Your task to perform on an android device: When is my next appointment? Image 0: 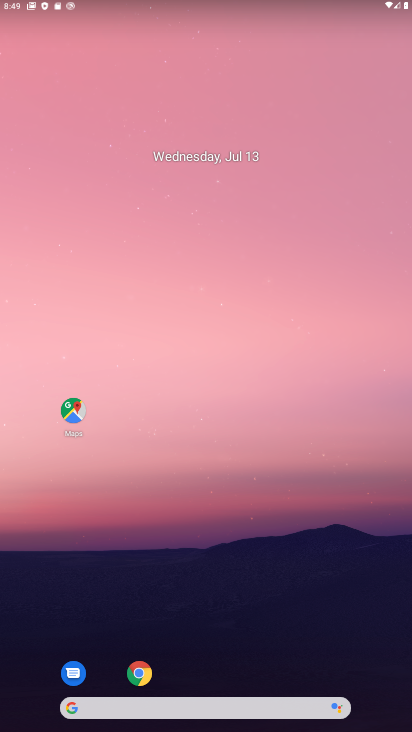
Step 0: drag from (196, 614) to (111, 111)
Your task to perform on an android device: When is my next appointment? Image 1: 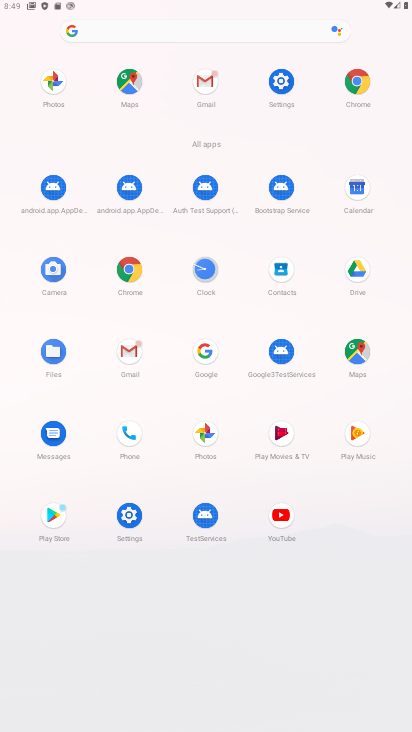
Step 1: click (347, 191)
Your task to perform on an android device: When is my next appointment? Image 2: 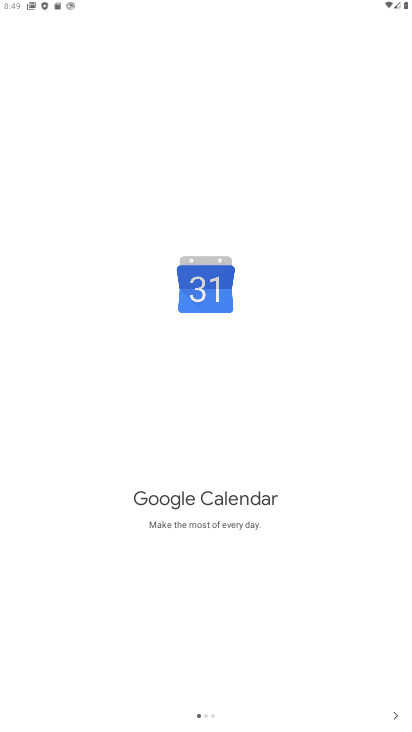
Step 2: click (394, 720)
Your task to perform on an android device: When is my next appointment? Image 3: 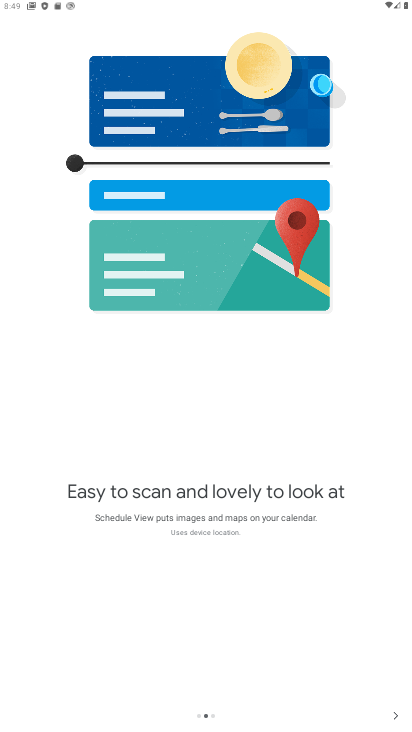
Step 3: click (394, 719)
Your task to perform on an android device: When is my next appointment? Image 4: 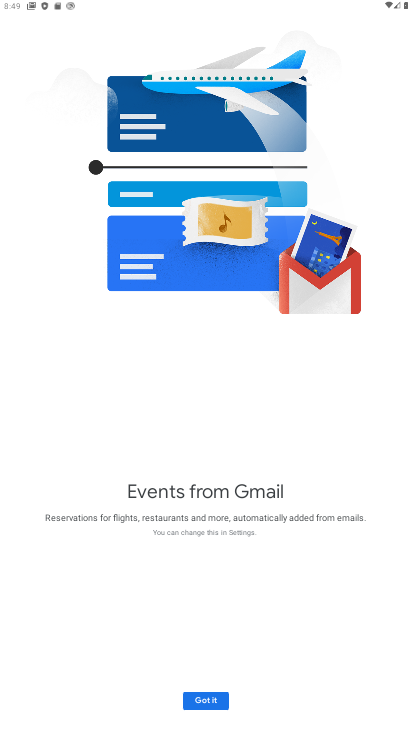
Step 4: click (210, 691)
Your task to perform on an android device: When is my next appointment? Image 5: 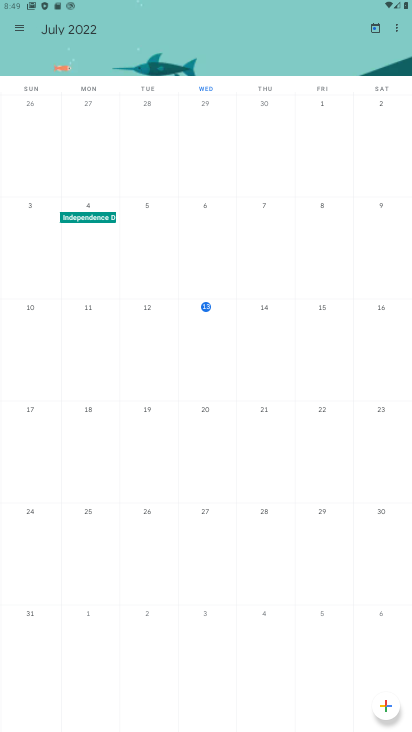
Step 5: click (204, 299)
Your task to perform on an android device: When is my next appointment? Image 6: 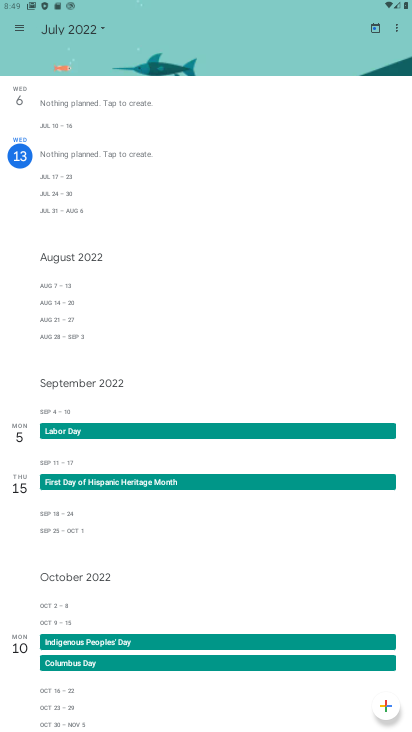
Step 6: task complete